Your task to perform on an android device: How much does the Samsung TV cost? Image 0: 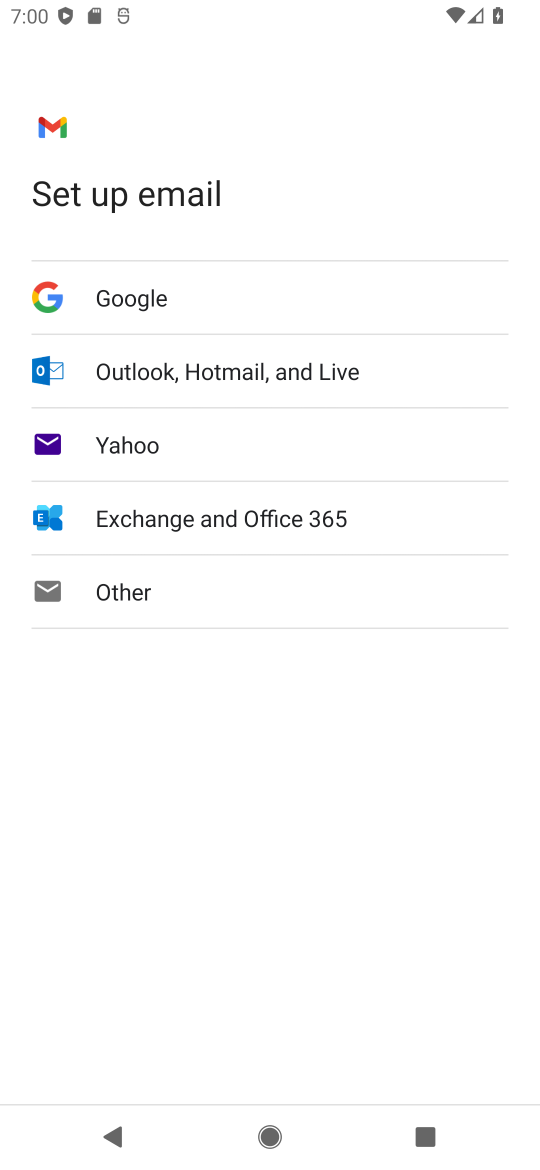
Step 0: press home button
Your task to perform on an android device: How much does the Samsung TV cost? Image 1: 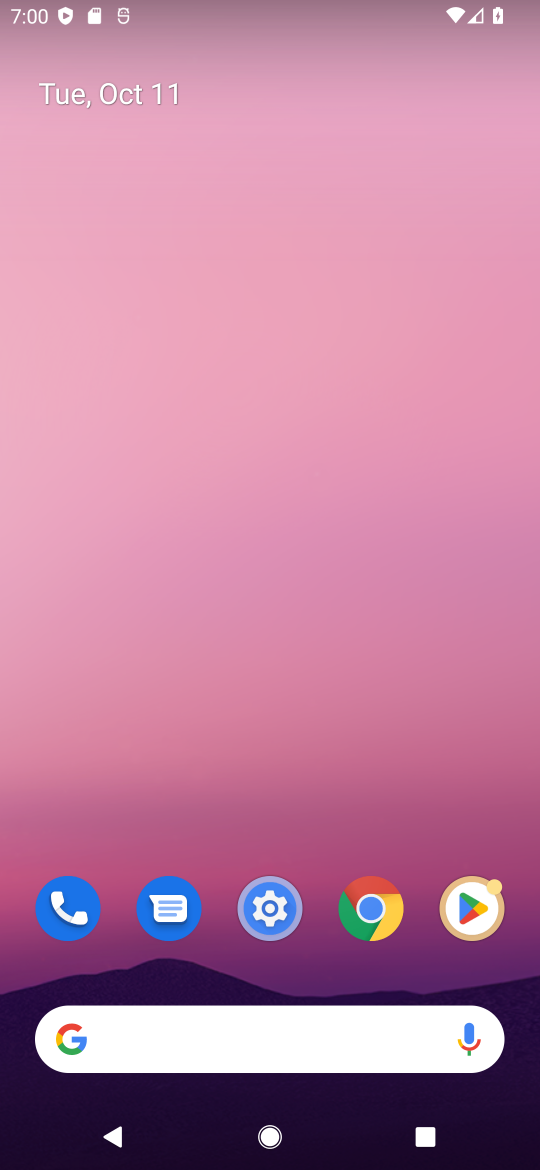
Step 1: click (70, 1042)
Your task to perform on an android device: How much does the Samsung TV cost? Image 2: 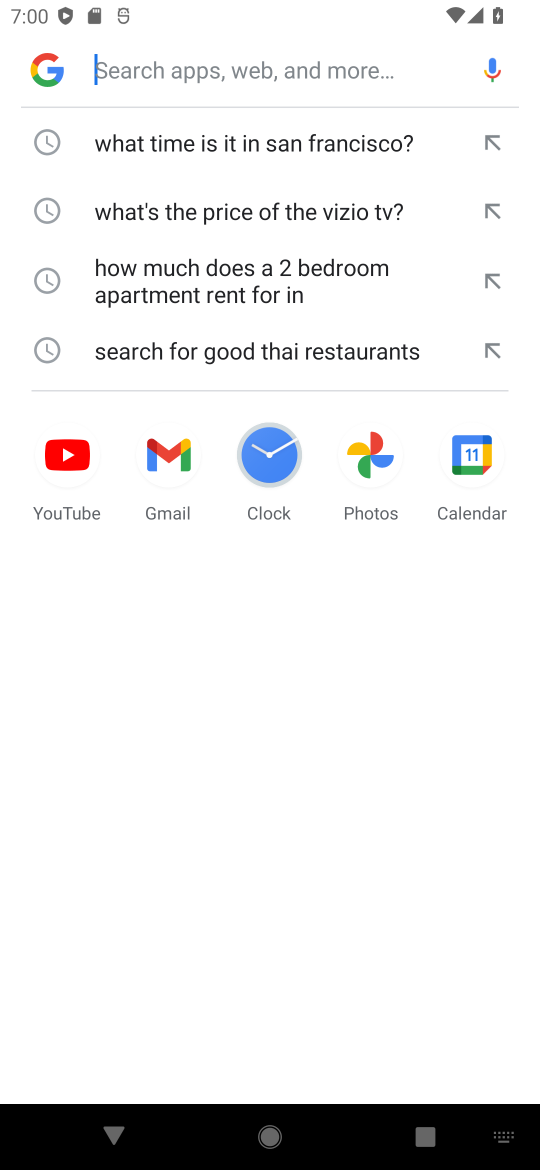
Step 2: type "How much does the Samsung TV cost?"
Your task to perform on an android device: How much does the Samsung TV cost? Image 3: 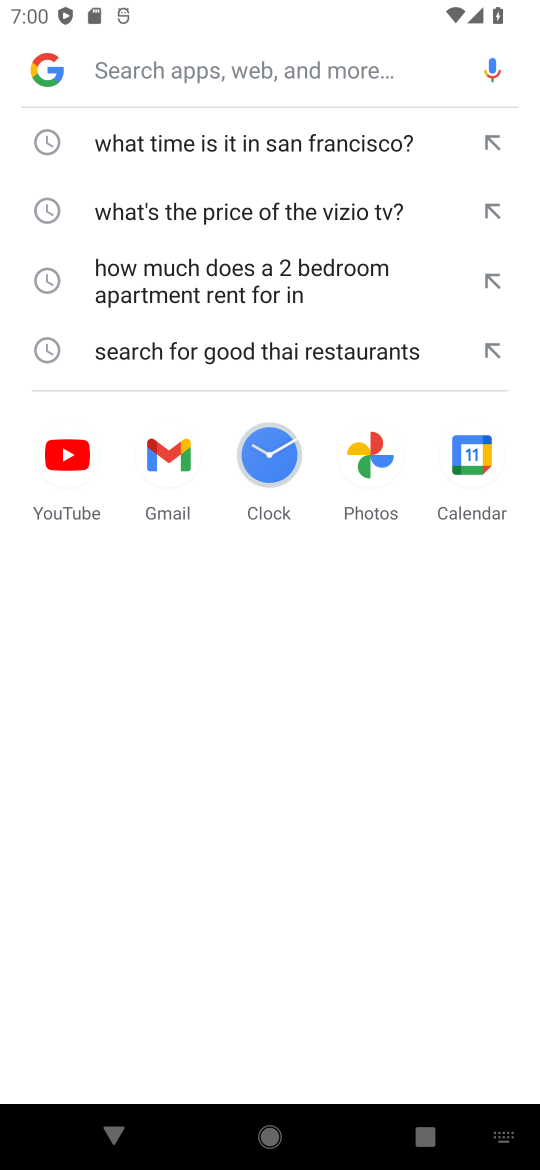
Step 3: click (219, 58)
Your task to perform on an android device: How much does the Samsung TV cost? Image 4: 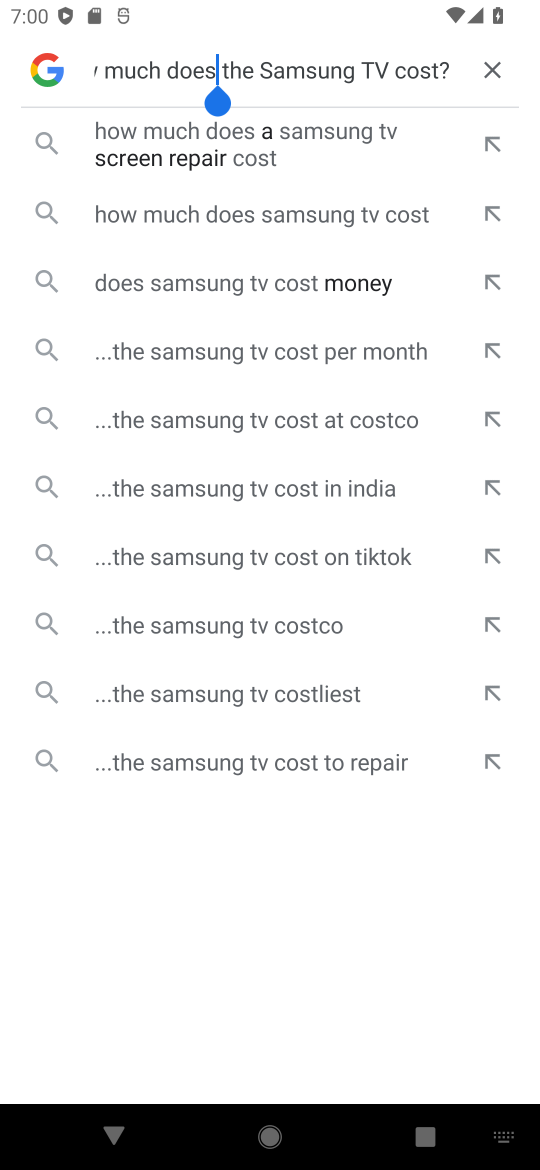
Step 4: press enter
Your task to perform on an android device: How much does the Samsung TV cost? Image 5: 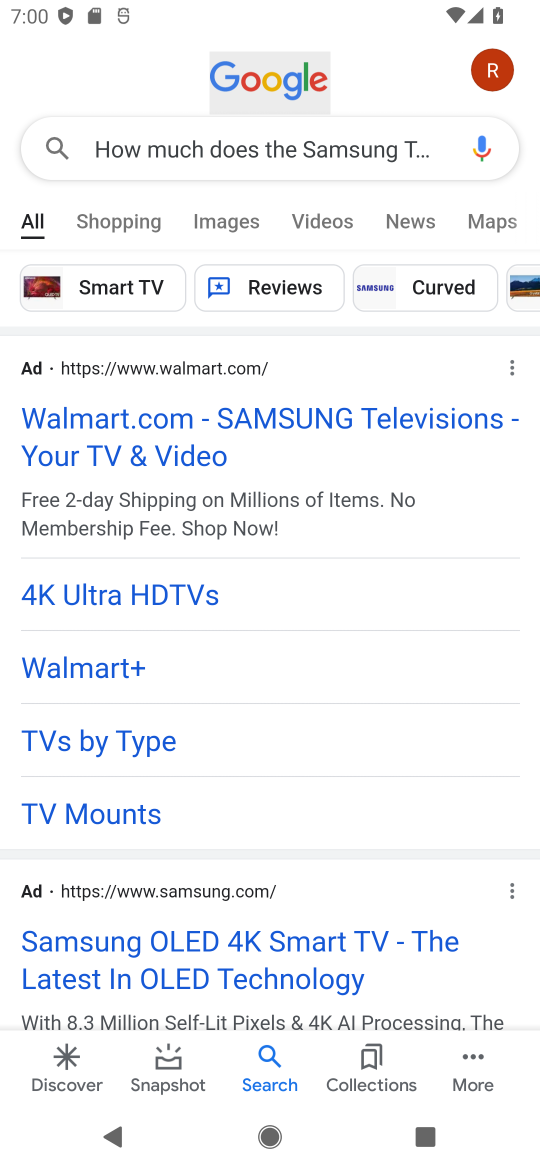
Step 5: task complete